Your task to perform on an android device: Go to privacy settings Image 0: 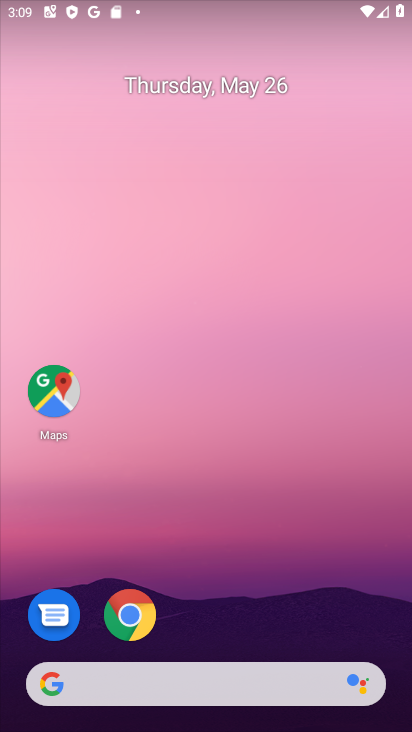
Step 0: drag from (171, 636) to (223, 182)
Your task to perform on an android device: Go to privacy settings Image 1: 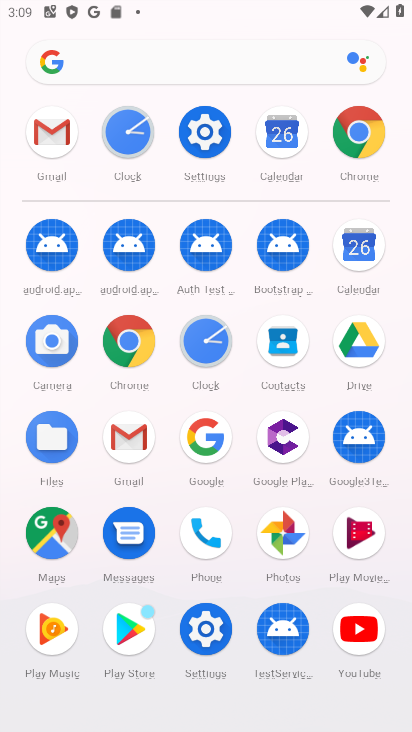
Step 1: click (214, 135)
Your task to perform on an android device: Go to privacy settings Image 2: 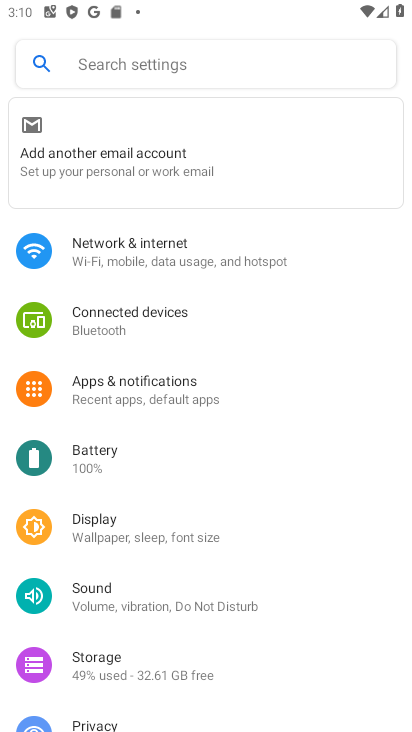
Step 2: drag from (168, 637) to (143, 310)
Your task to perform on an android device: Go to privacy settings Image 3: 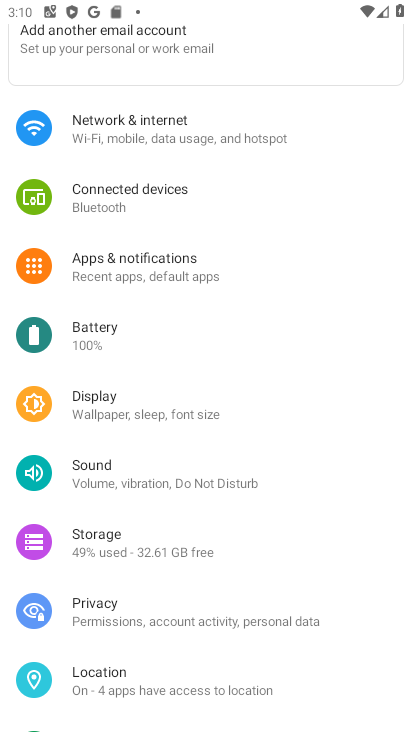
Step 3: click (119, 609)
Your task to perform on an android device: Go to privacy settings Image 4: 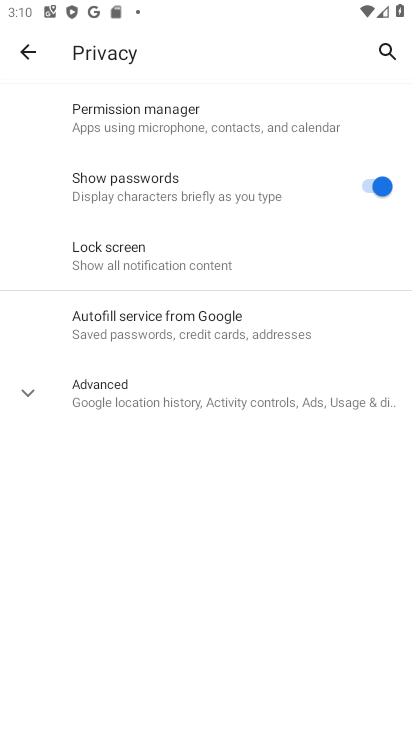
Step 4: task complete